Your task to perform on an android device: Open the web browser Image 0: 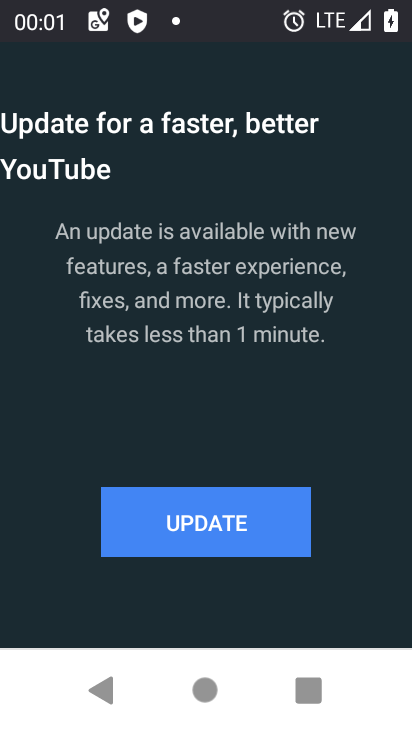
Step 0: press home button
Your task to perform on an android device: Open the web browser Image 1: 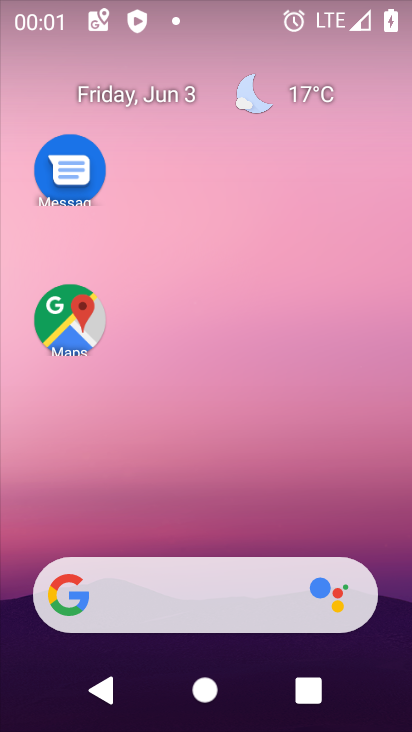
Step 1: drag from (291, 451) to (318, 5)
Your task to perform on an android device: Open the web browser Image 2: 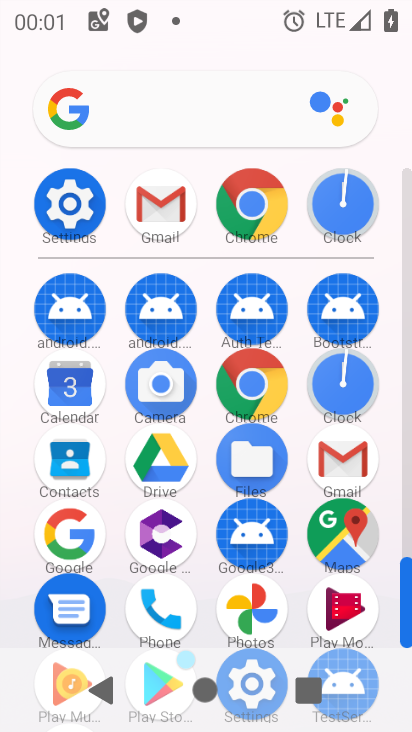
Step 2: click (252, 204)
Your task to perform on an android device: Open the web browser Image 3: 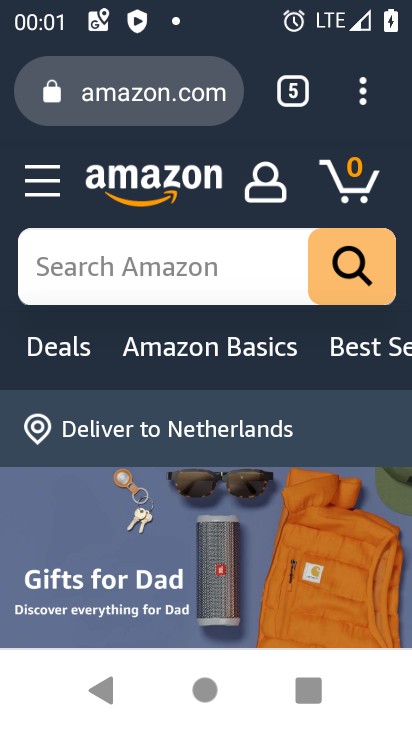
Step 3: click (109, 99)
Your task to perform on an android device: Open the web browser Image 4: 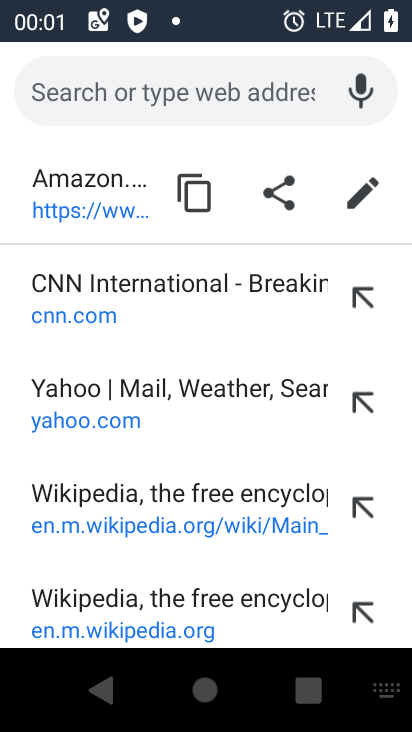
Step 4: type "web browser"
Your task to perform on an android device: Open the web browser Image 5: 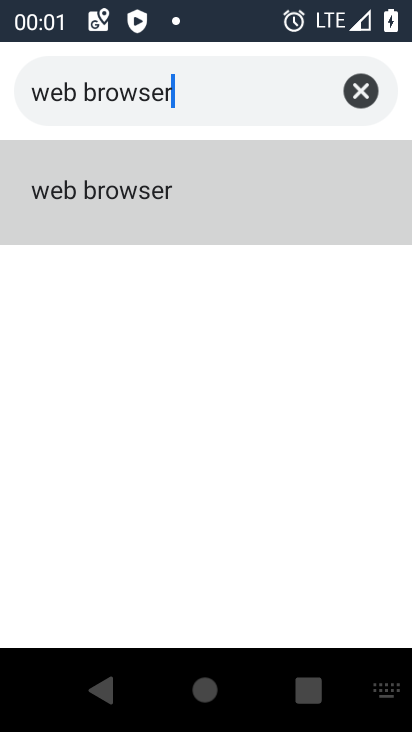
Step 5: click (337, 202)
Your task to perform on an android device: Open the web browser Image 6: 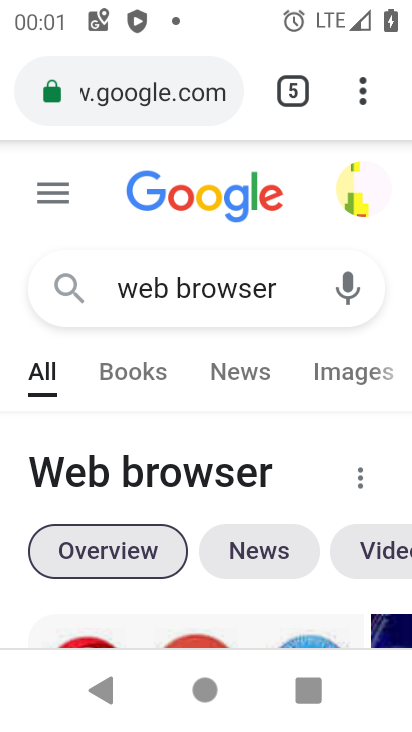
Step 6: task complete